Your task to perform on an android device: Open CNN.com Image 0: 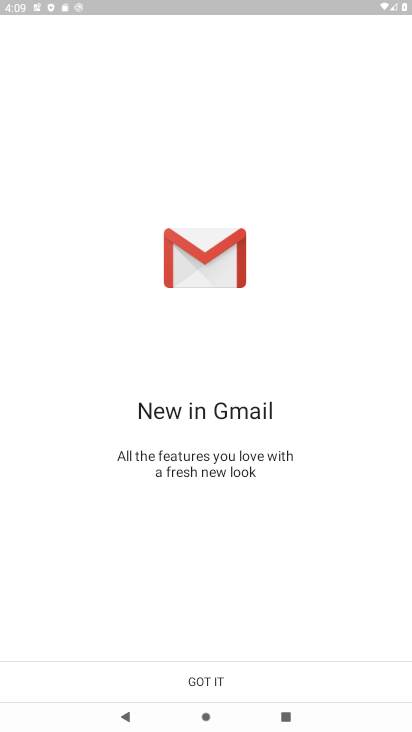
Step 0: press home button
Your task to perform on an android device: Open CNN.com Image 1: 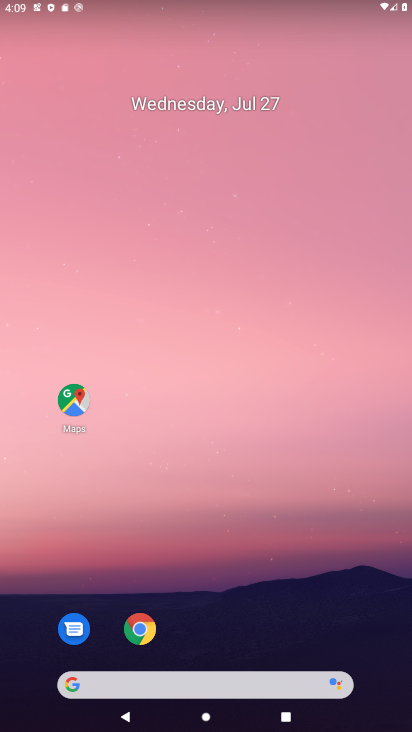
Step 1: drag from (205, 669) to (192, 188)
Your task to perform on an android device: Open CNN.com Image 2: 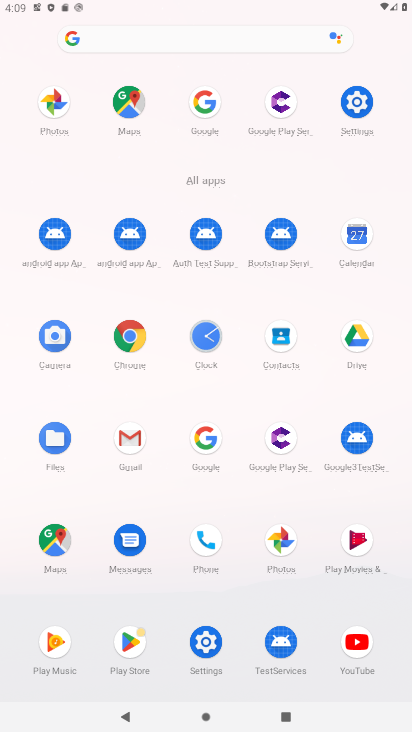
Step 2: click (124, 333)
Your task to perform on an android device: Open CNN.com Image 3: 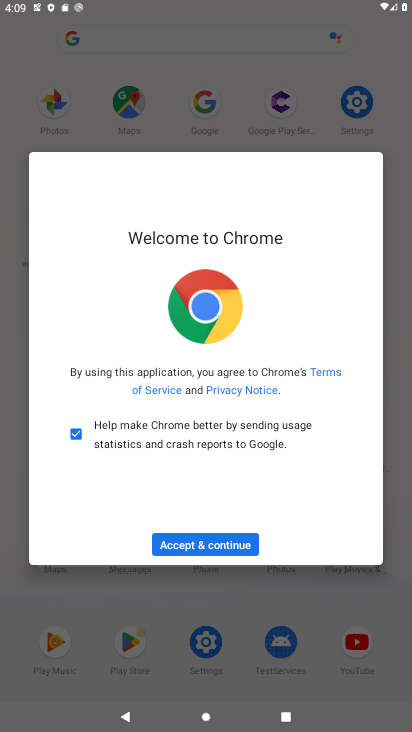
Step 3: click (218, 554)
Your task to perform on an android device: Open CNN.com Image 4: 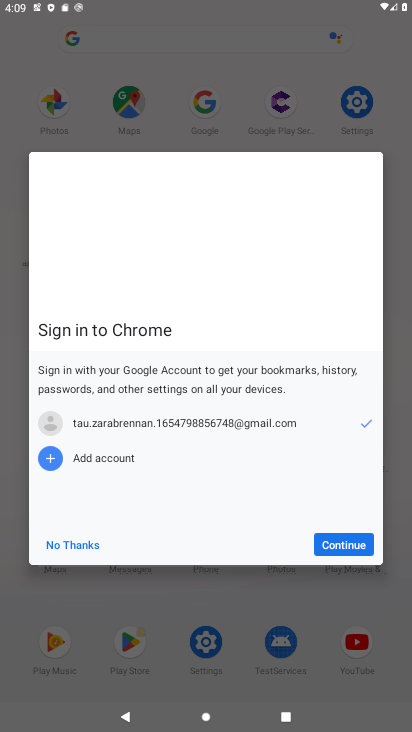
Step 4: click (352, 546)
Your task to perform on an android device: Open CNN.com Image 5: 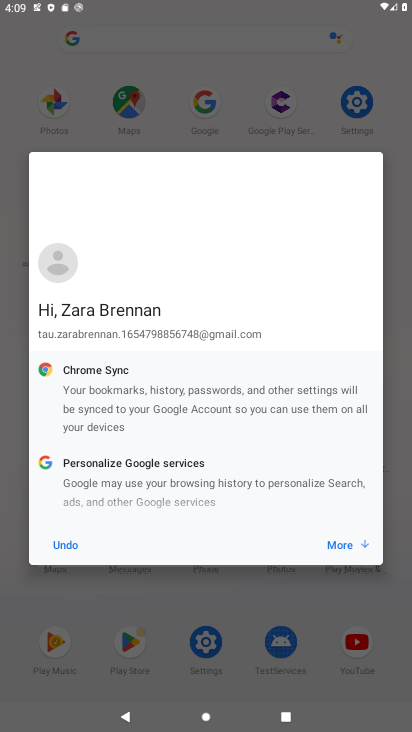
Step 5: click (333, 547)
Your task to perform on an android device: Open CNN.com Image 6: 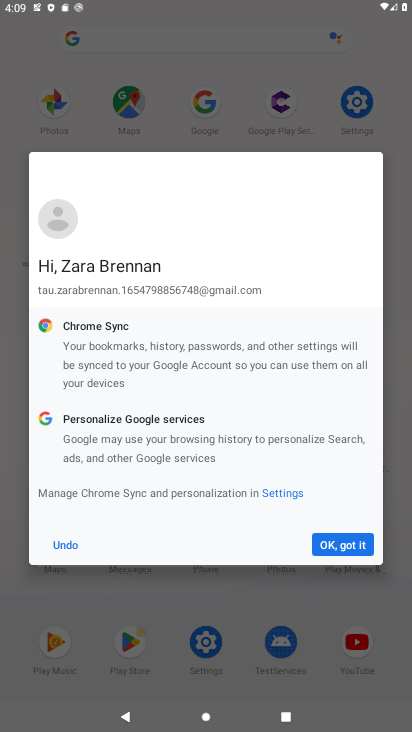
Step 6: click (333, 547)
Your task to perform on an android device: Open CNN.com Image 7: 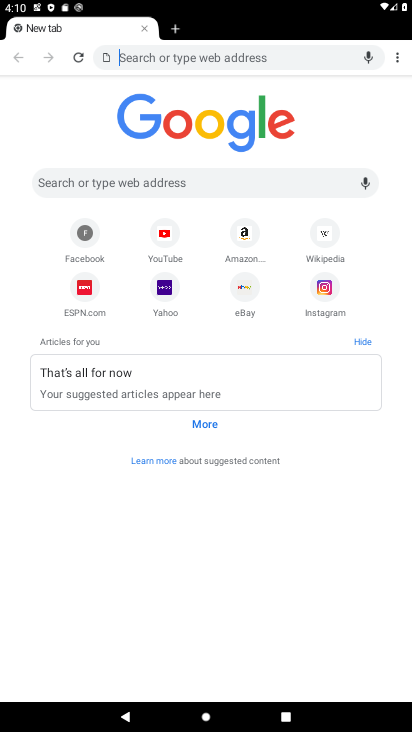
Step 7: type "cnn"
Your task to perform on an android device: Open CNN.com Image 8: 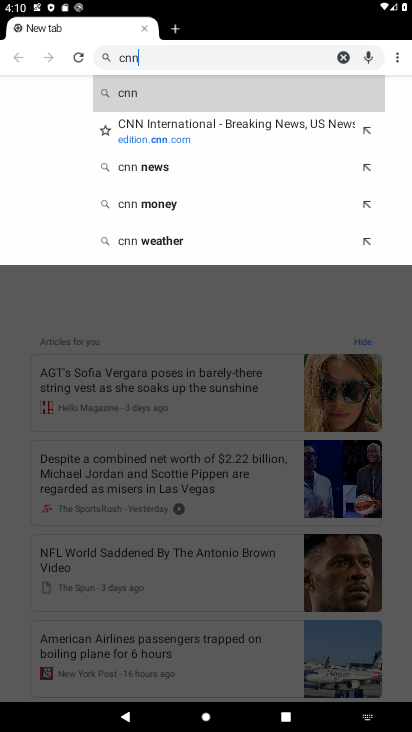
Step 8: click (160, 143)
Your task to perform on an android device: Open CNN.com Image 9: 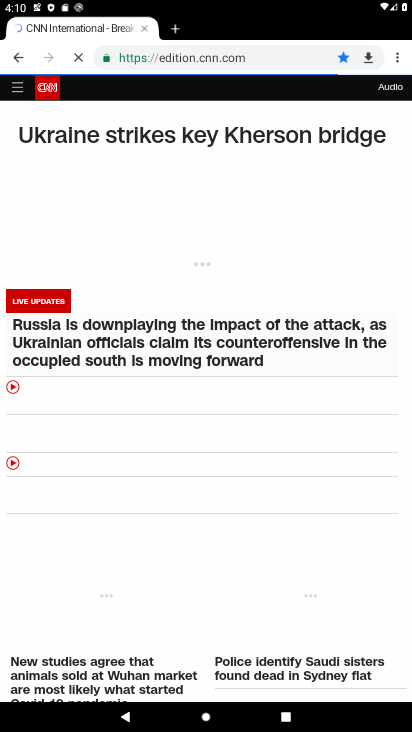
Step 9: task complete